Your task to perform on an android device: set default search engine in the chrome app Image 0: 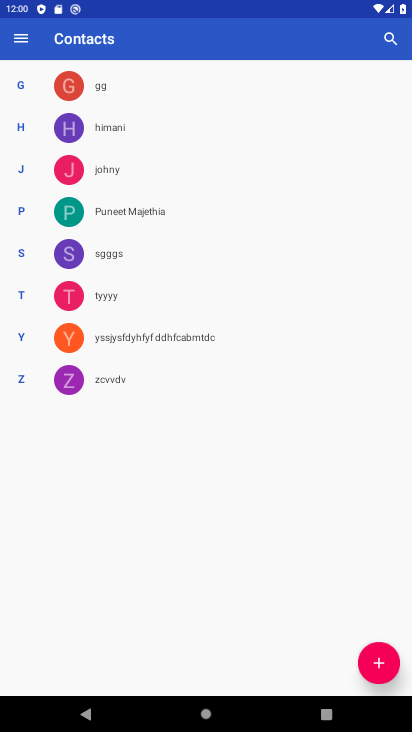
Step 0: press home button
Your task to perform on an android device: set default search engine in the chrome app Image 1: 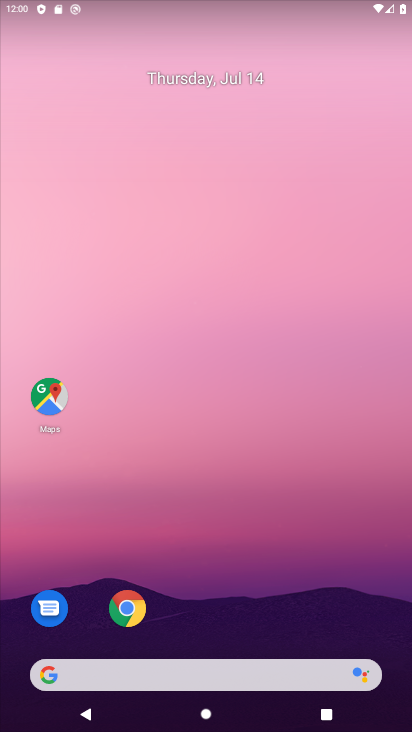
Step 1: click (126, 608)
Your task to perform on an android device: set default search engine in the chrome app Image 2: 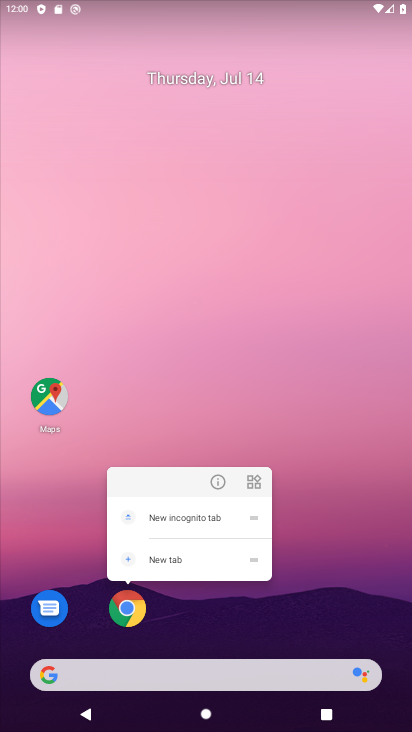
Step 2: click (126, 607)
Your task to perform on an android device: set default search engine in the chrome app Image 3: 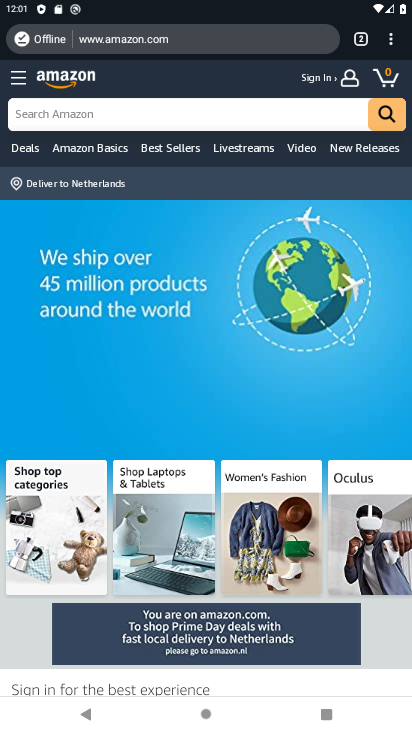
Step 3: click (391, 40)
Your task to perform on an android device: set default search engine in the chrome app Image 4: 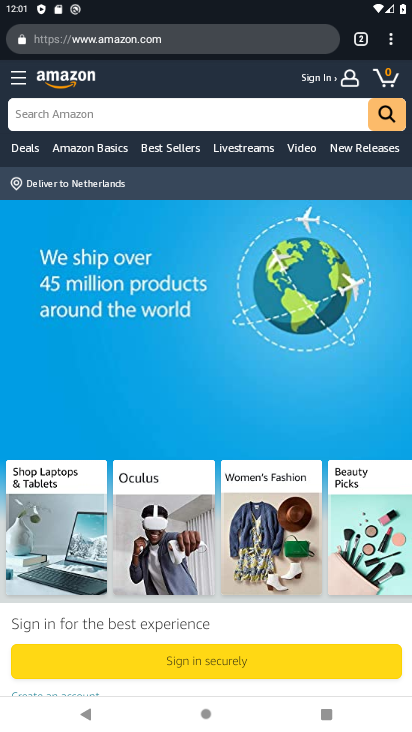
Step 4: click (389, 41)
Your task to perform on an android device: set default search engine in the chrome app Image 5: 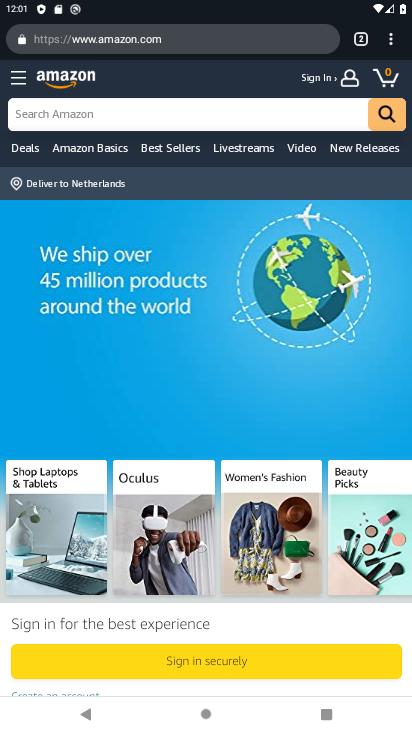
Step 5: click (390, 42)
Your task to perform on an android device: set default search engine in the chrome app Image 6: 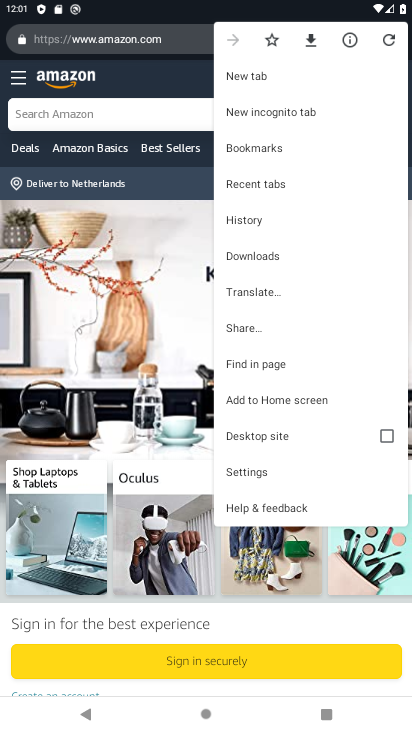
Step 6: click (297, 472)
Your task to perform on an android device: set default search engine in the chrome app Image 7: 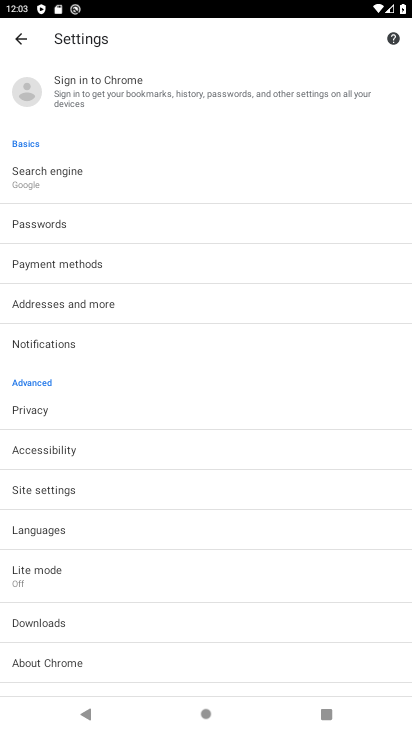
Step 7: click (90, 179)
Your task to perform on an android device: set default search engine in the chrome app Image 8: 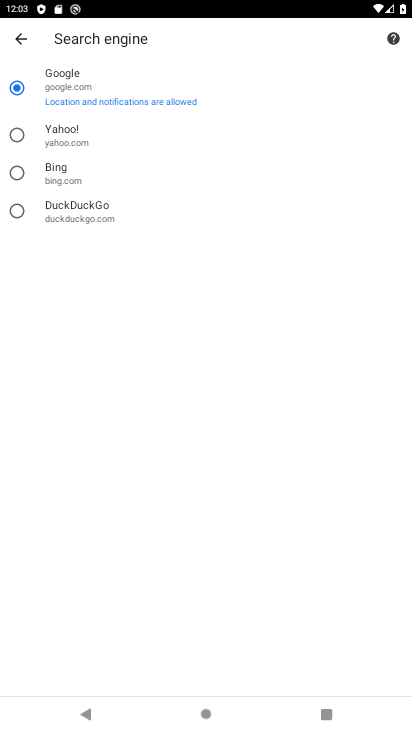
Step 8: task complete